Your task to perform on an android device: What's the weather today? Image 0: 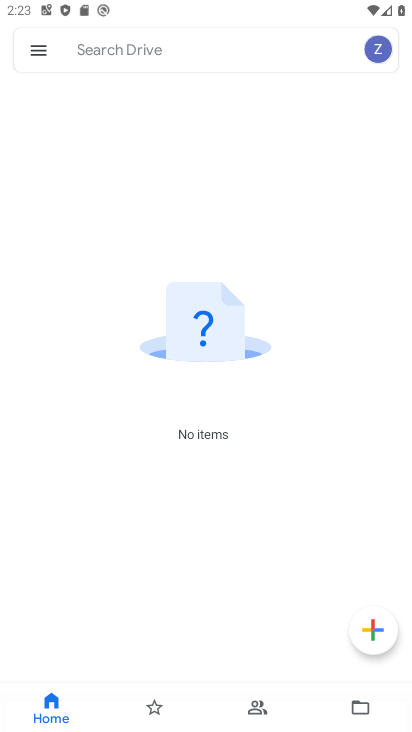
Step 0: press home button
Your task to perform on an android device: What's the weather today? Image 1: 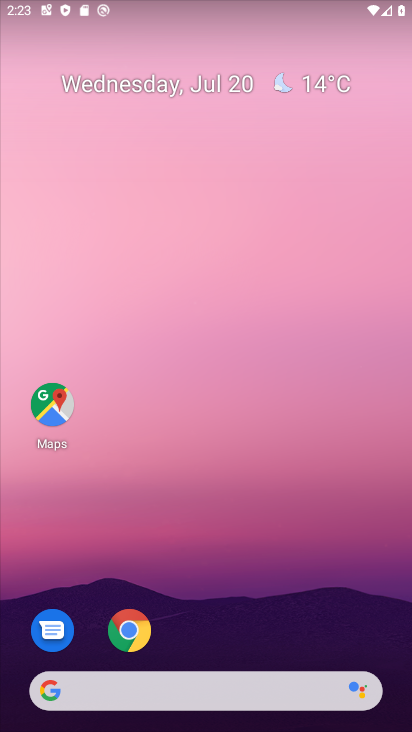
Step 1: click (163, 703)
Your task to perform on an android device: What's the weather today? Image 2: 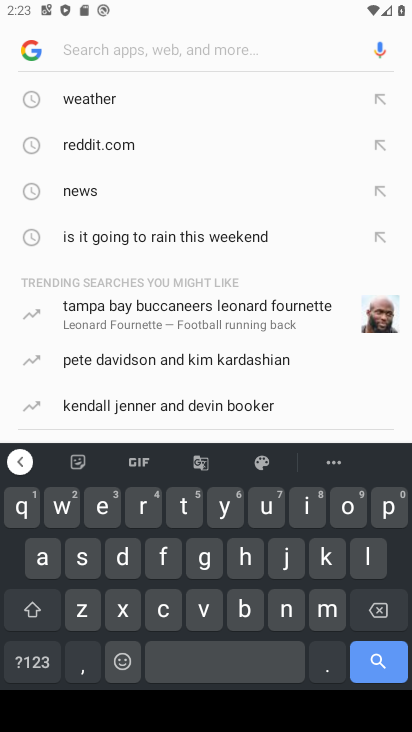
Step 2: click (118, 105)
Your task to perform on an android device: What's the weather today? Image 3: 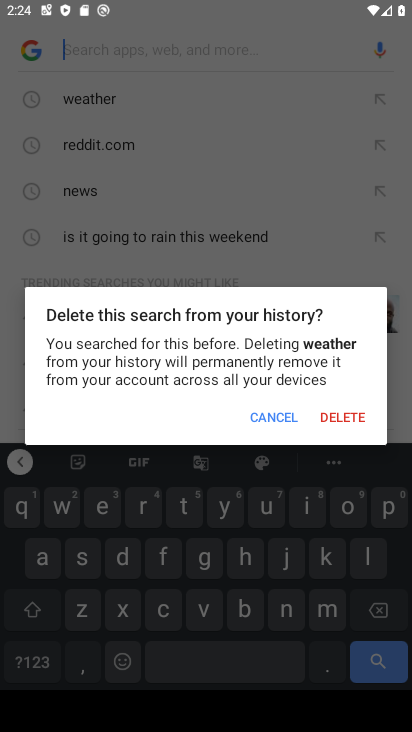
Step 3: click (273, 409)
Your task to perform on an android device: What's the weather today? Image 4: 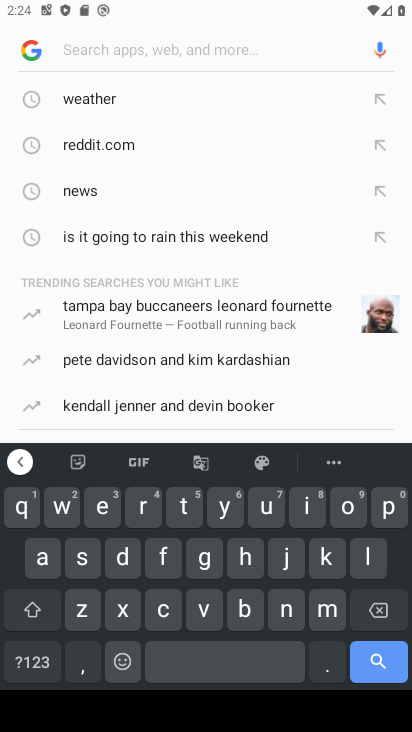
Step 4: click (127, 99)
Your task to perform on an android device: What's the weather today? Image 5: 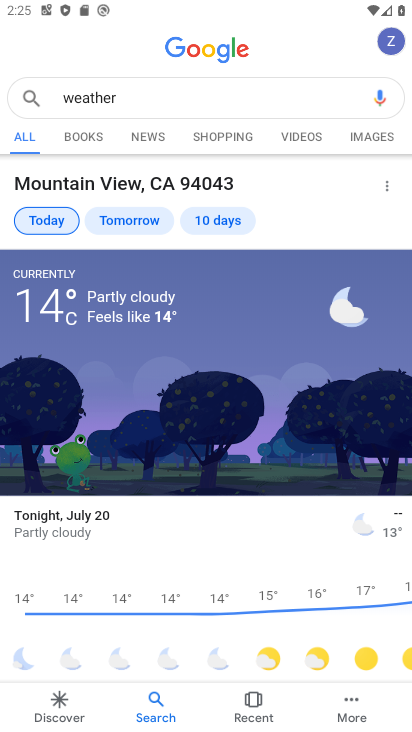
Step 5: task complete